Your task to perform on an android device: turn off sleep mode Image 0: 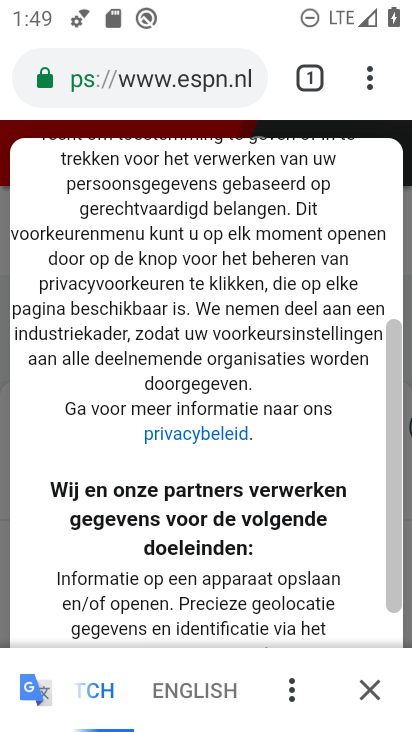
Step 0: press home button
Your task to perform on an android device: turn off sleep mode Image 1: 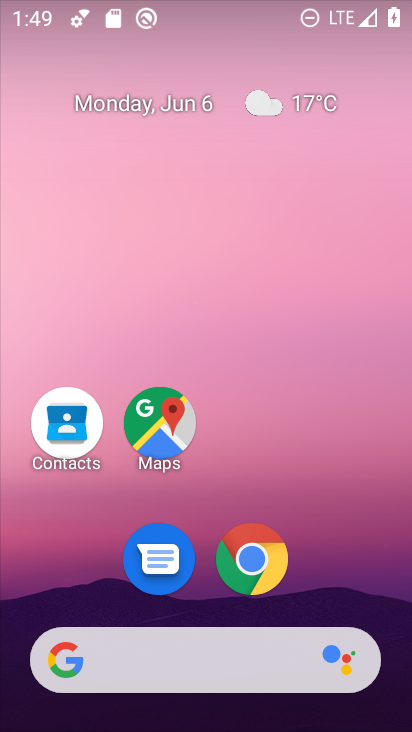
Step 1: drag from (258, 628) to (360, 69)
Your task to perform on an android device: turn off sleep mode Image 2: 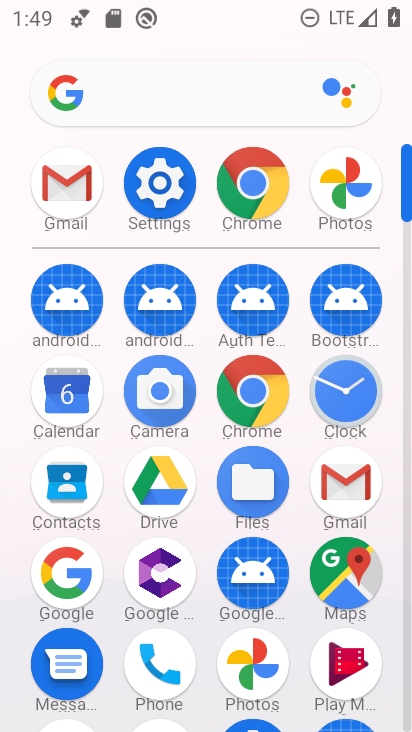
Step 2: click (167, 167)
Your task to perform on an android device: turn off sleep mode Image 3: 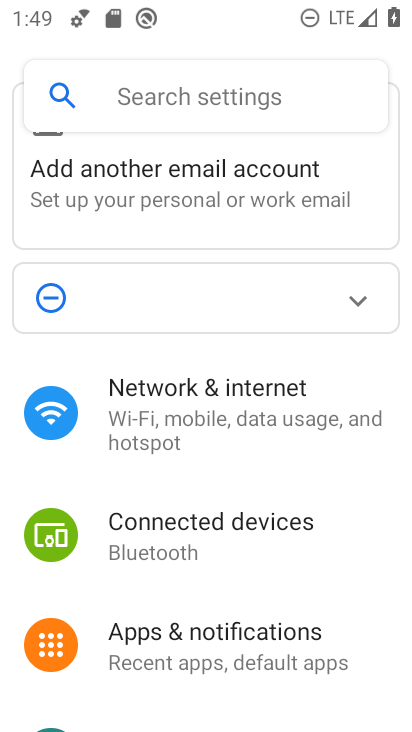
Step 3: drag from (145, 556) to (191, 303)
Your task to perform on an android device: turn off sleep mode Image 4: 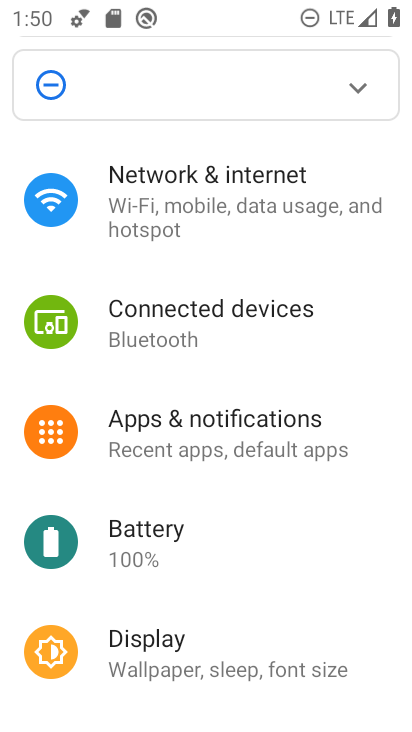
Step 4: click (185, 652)
Your task to perform on an android device: turn off sleep mode Image 5: 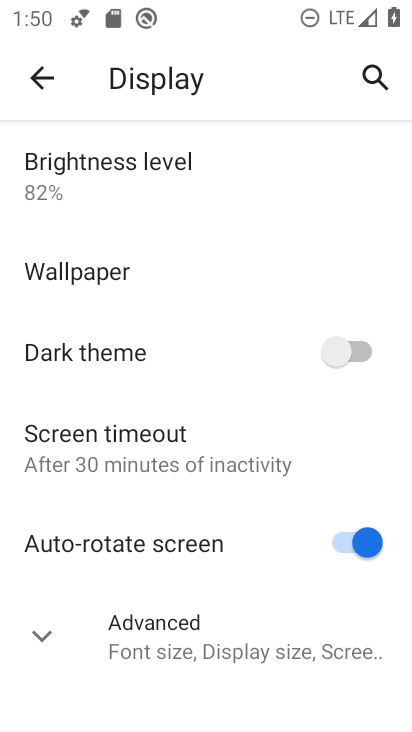
Step 5: task complete